Your task to perform on an android device: Go to accessibility settings Image 0: 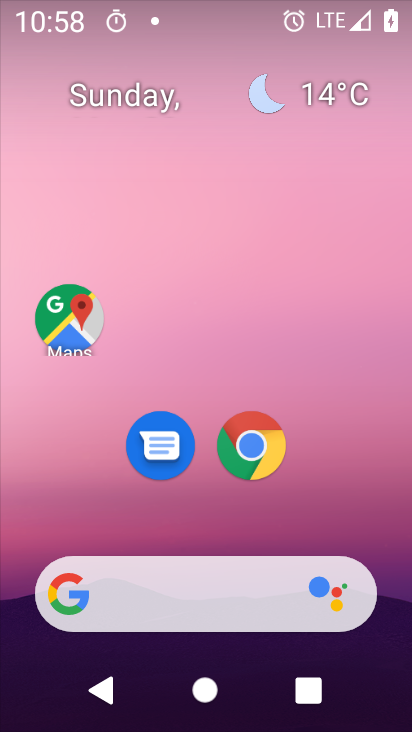
Step 0: drag from (199, 350) to (216, 168)
Your task to perform on an android device: Go to accessibility settings Image 1: 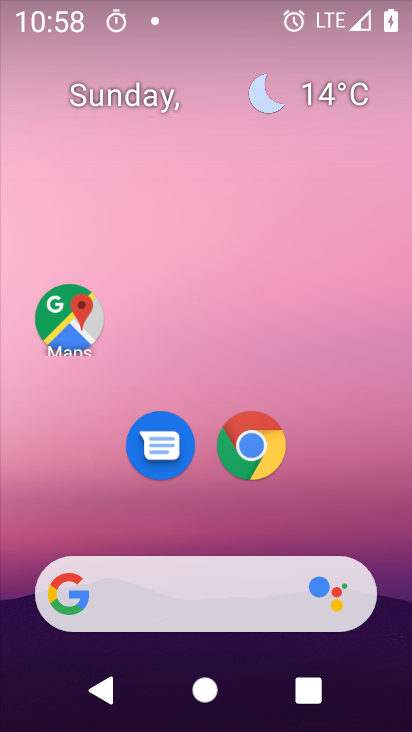
Step 1: drag from (201, 509) to (201, 151)
Your task to perform on an android device: Go to accessibility settings Image 2: 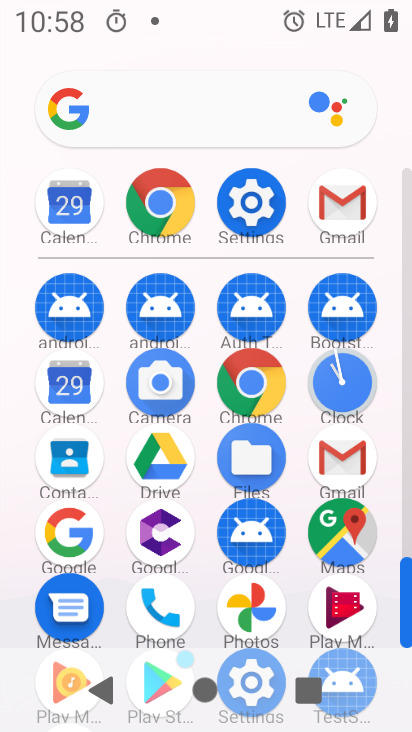
Step 2: click (265, 184)
Your task to perform on an android device: Go to accessibility settings Image 3: 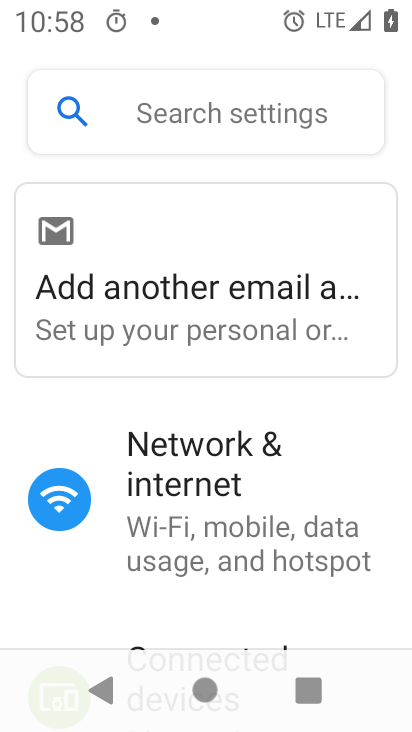
Step 3: drag from (221, 560) to (286, 92)
Your task to perform on an android device: Go to accessibility settings Image 4: 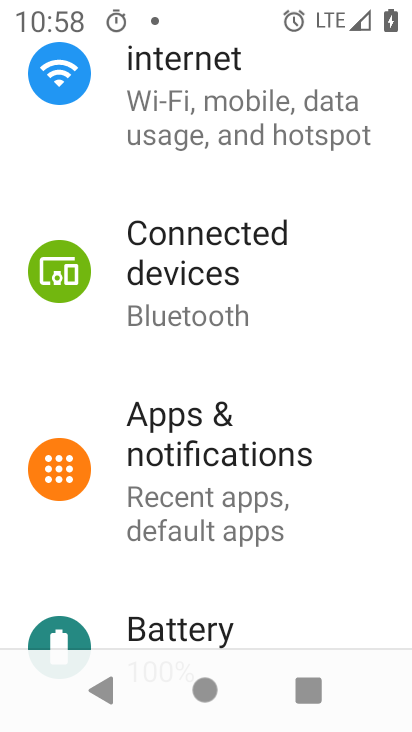
Step 4: drag from (235, 496) to (281, 109)
Your task to perform on an android device: Go to accessibility settings Image 5: 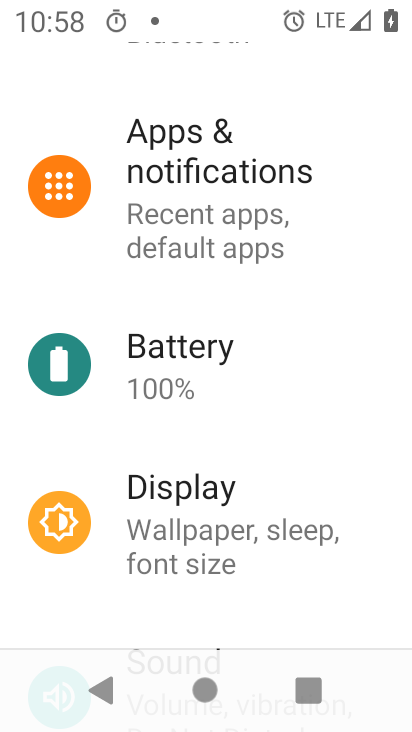
Step 5: drag from (198, 489) to (261, 129)
Your task to perform on an android device: Go to accessibility settings Image 6: 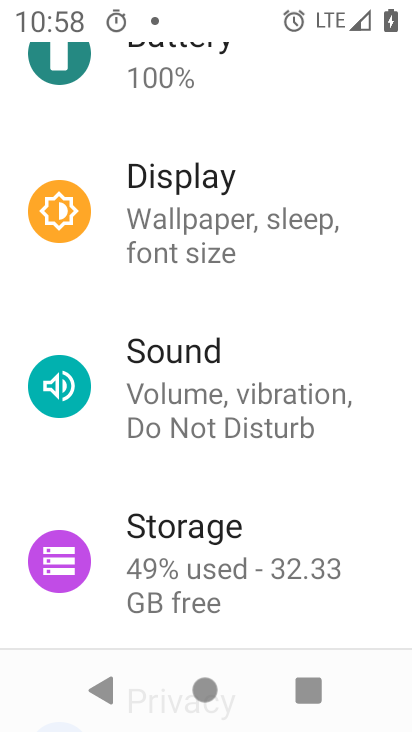
Step 6: drag from (242, 205) to (314, 724)
Your task to perform on an android device: Go to accessibility settings Image 7: 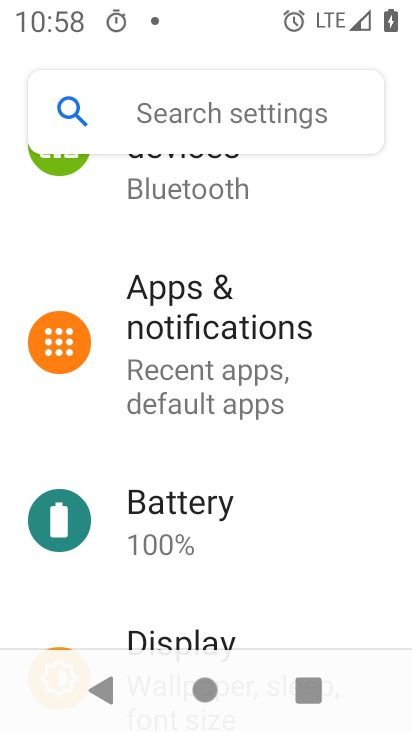
Step 7: drag from (304, 609) to (394, 244)
Your task to perform on an android device: Go to accessibility settings Image 8: 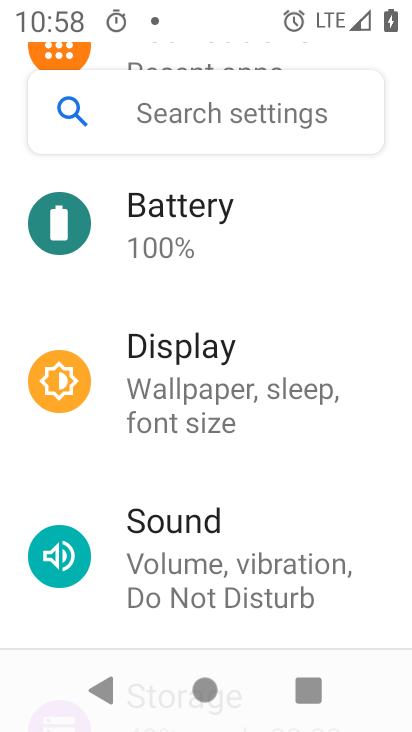
Step 8: drag from (183, 589) to (326, 29)
Your task to perform on an android device: Go to accessibility settings Image 9: 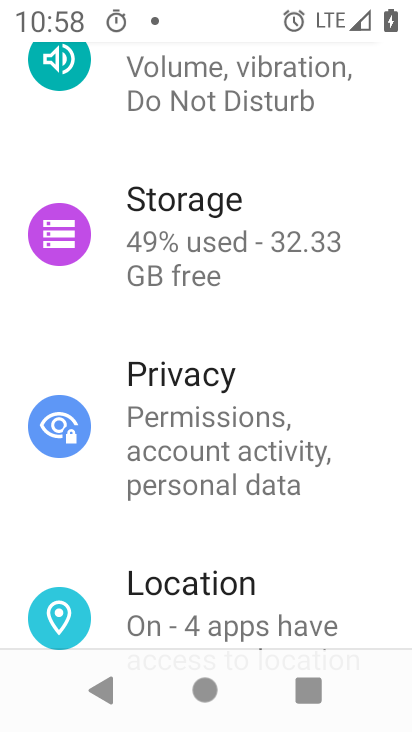
Step 9: drag from (212, 587) to (282, 143)
Your task to perform on an android device: Go to accessibility settings Image 10: 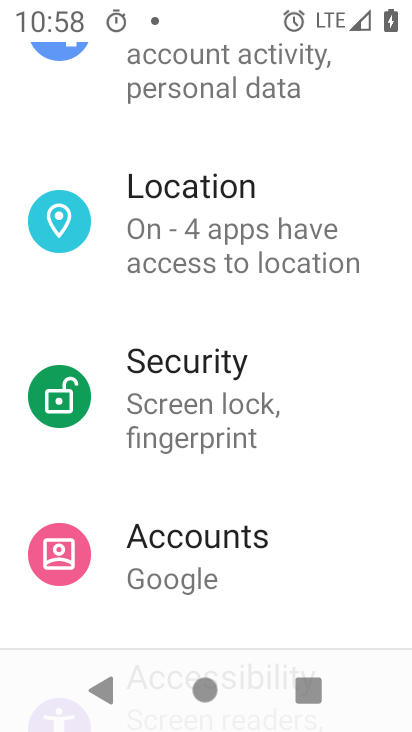
Step 10: drag from (169, 507) to (219, 84)
Your task to perform on an android device: Go to accessibility settings Image 11: 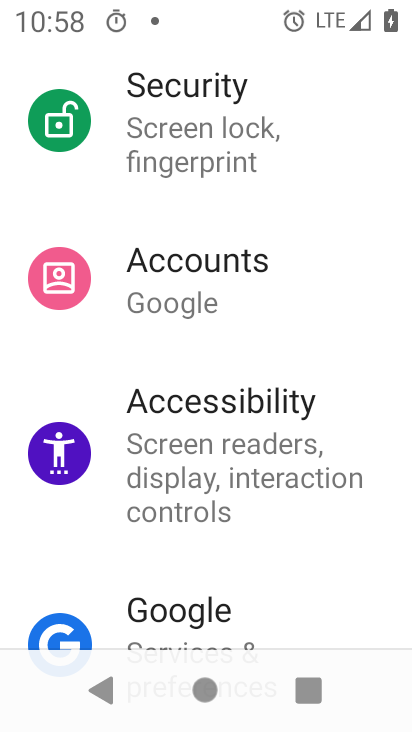
Step 11: click (198, 463)
Your task to perform on an android device: Go to accessibility settings Image 12: 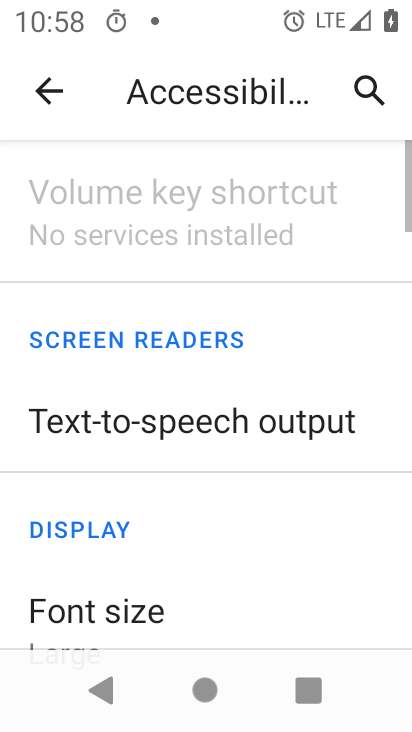
Step 12: task complete